Your task to perform on an android device: check the backup settings in the google photos Image 0: 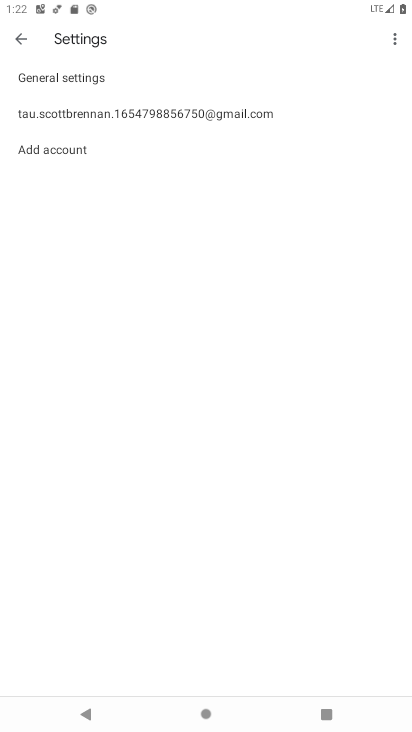
Step 0: press home button
Your task to perform on an android device: check the backup settings in the google photos Image 1: 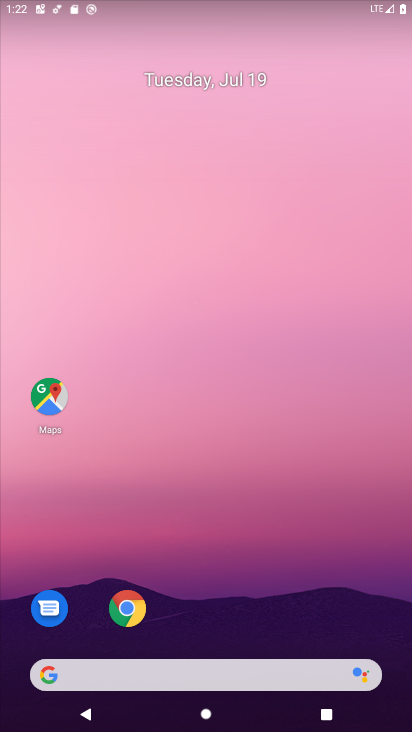
Step 1: drag from (267, 621) to (328, 2)
Your task to perform on an android device: check the backup settings in the google photos Image 2: 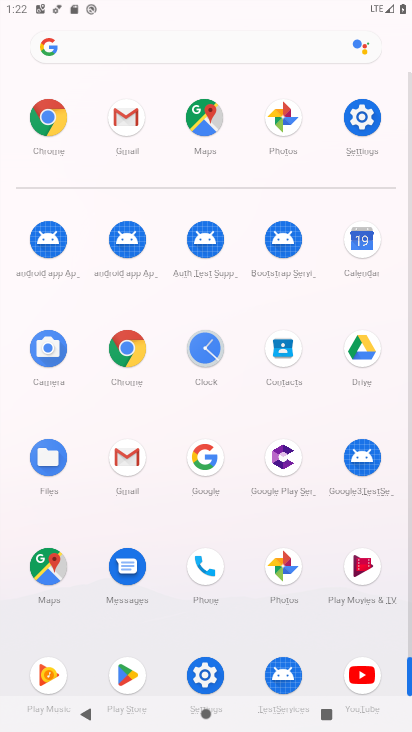
Step 2: click (284, 569)
Your task to perform on an android device: check the backup settings in the google photos Image 3: 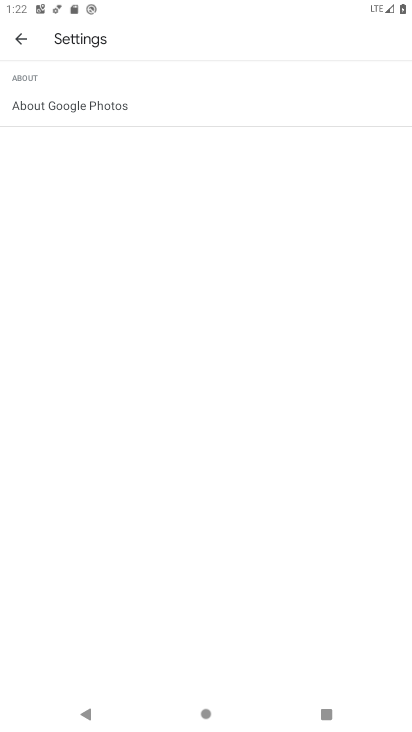
Step 3: press back button
Your task to perform on an android device: check the backup settings in the google photos Image 4: 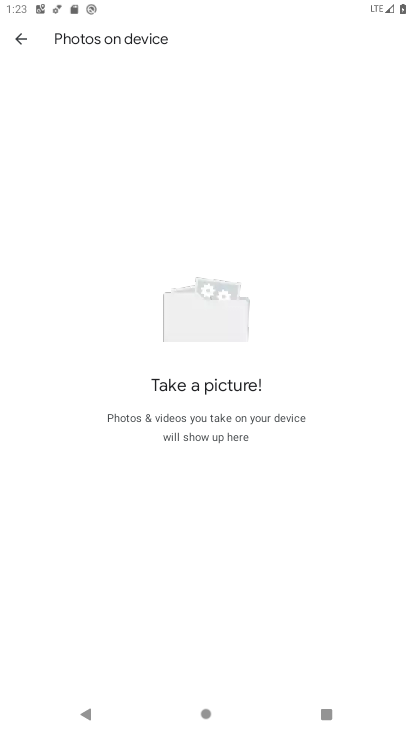
Step 4: press back button
Your task to perform on an android device: check the backup settings in the google photos Image 5: 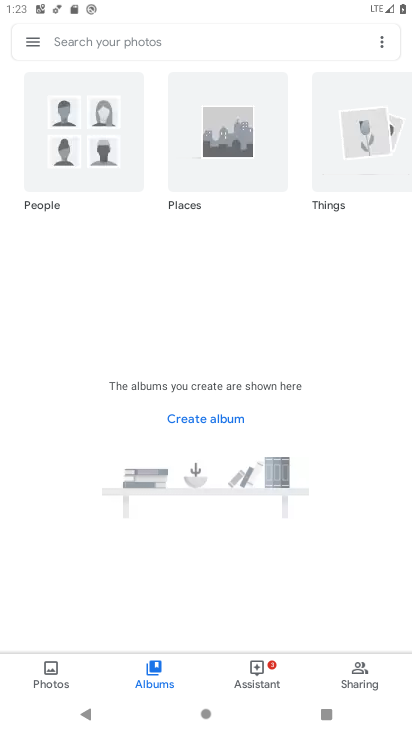
Step 5: click (82, 182)
Your task to perform on an android device: check the backup settings in the google photos Image 6: 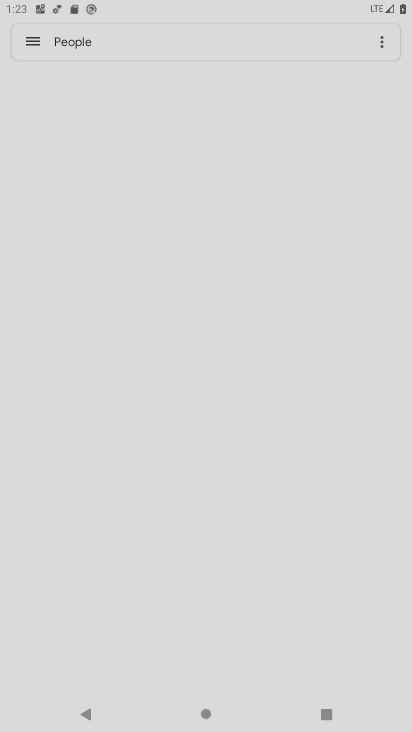
Step 6: click (33, 51)
Your task to perform on an android device: check the backup settings in the google photos Image 7: 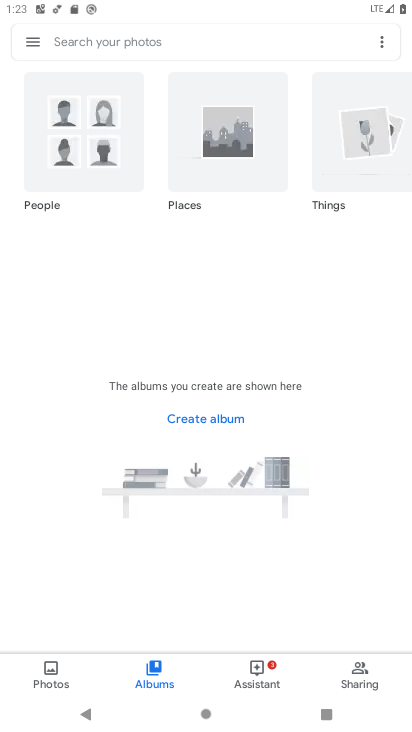
Step 7: click (34, 38)
Your task to perform on an android device: check the backup settings in the google photos Image 8: 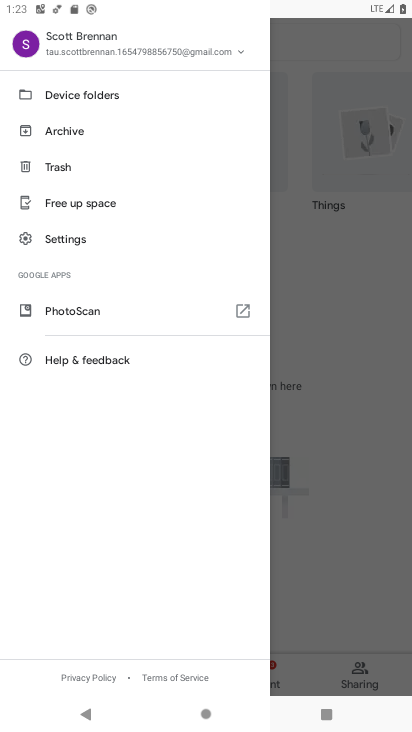
Step 8: click (84, 238)
Your task to perform on an android device: check the backup settings in the google photos Image 9: 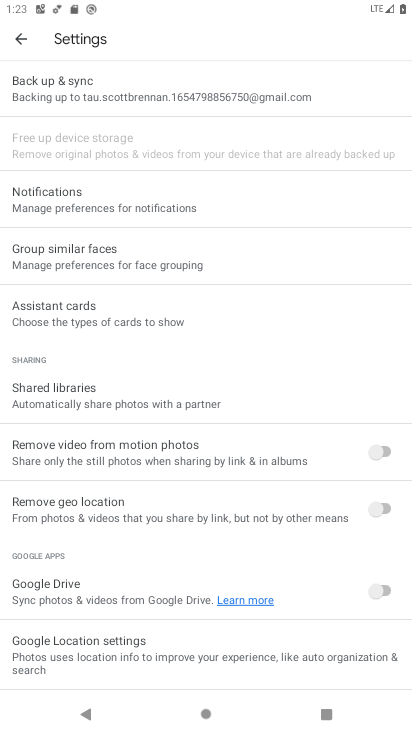
Step 9: click (163, 98)
Your task to perform on an android device: check the backup settings in the google photos Image 10: 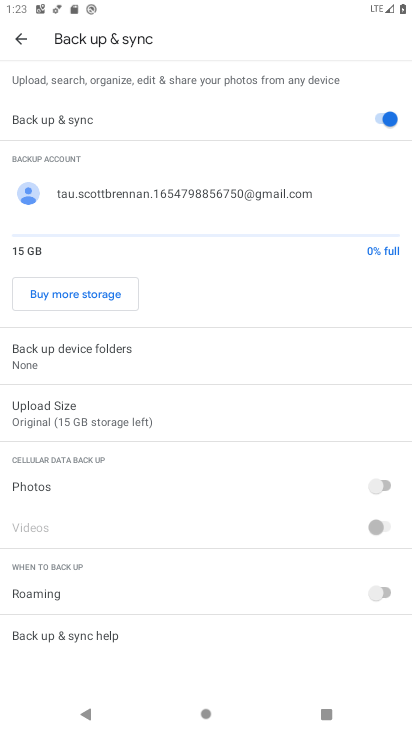
Step 10: task complete